Your task to perform on an android device: Open Google Chrome Image 0: 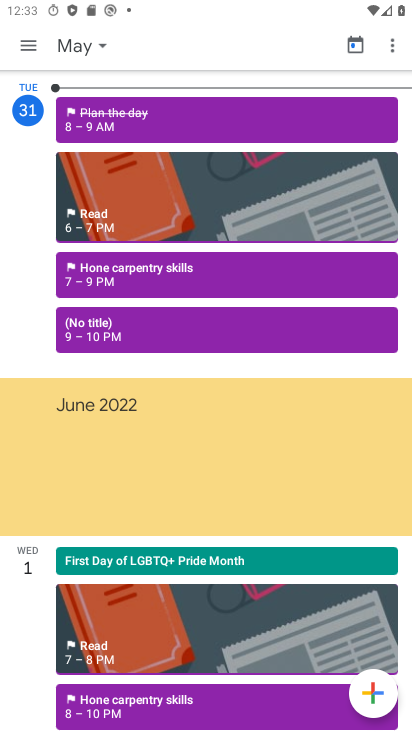
Step 0: press home button
Your task to perform on an android device: Open Google Chrome Image 1: 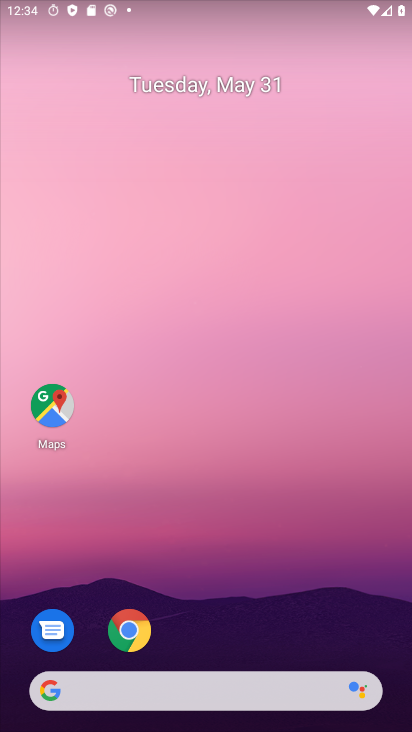
Step 1: click (123, 627)
Your task to perform on an android device: Open Google Chrome Image 2: 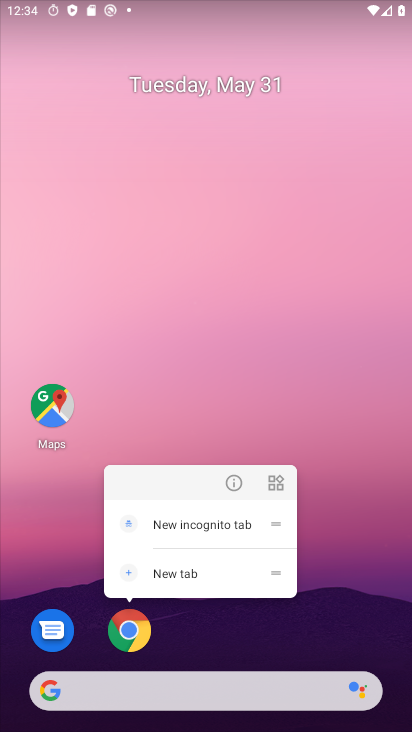
Step 2: click (130, 630)
Your task to perform on an android device: Open Google Chrome Image 3: 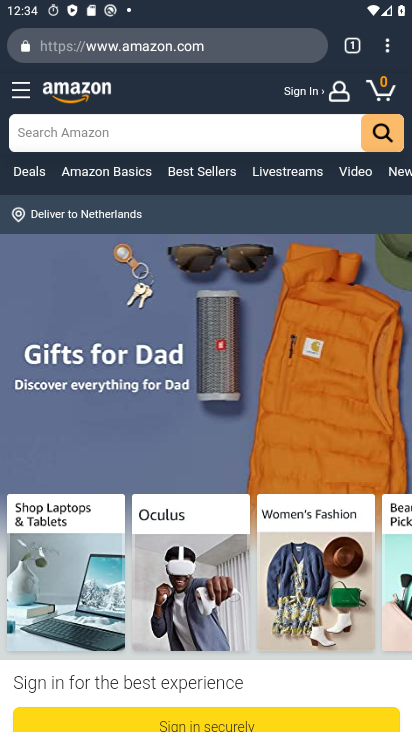
Step 3: task complete